Your task to perform on an android device: Open Amazon Image 0: 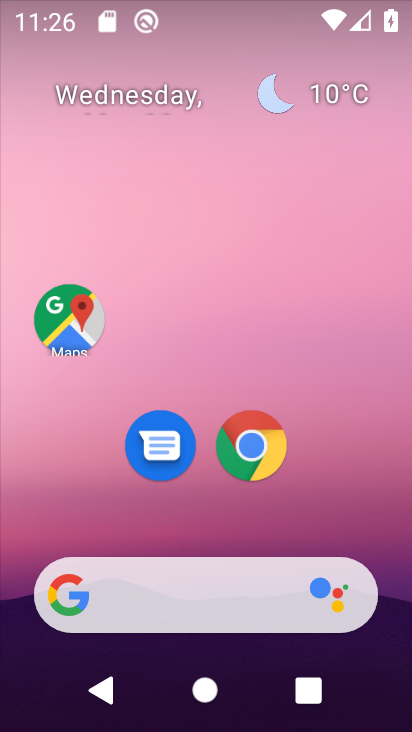
Step 0: click (252, 445)
Your task to perform on an android device: Open Amazon Image 1: 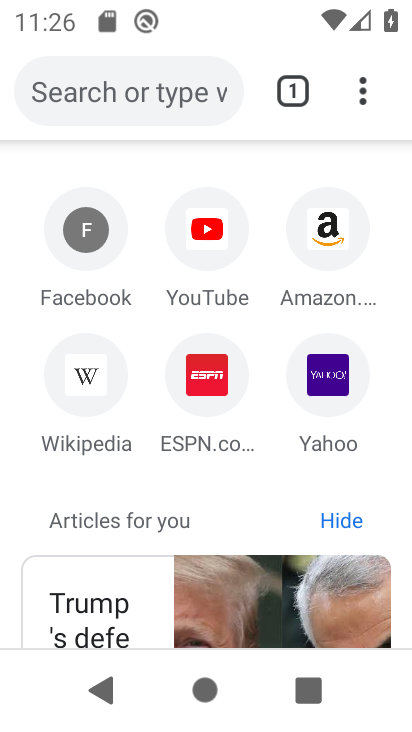
Step 1: click (333, 233)
Your task to perform on an android device: Open Amazon Image 2: 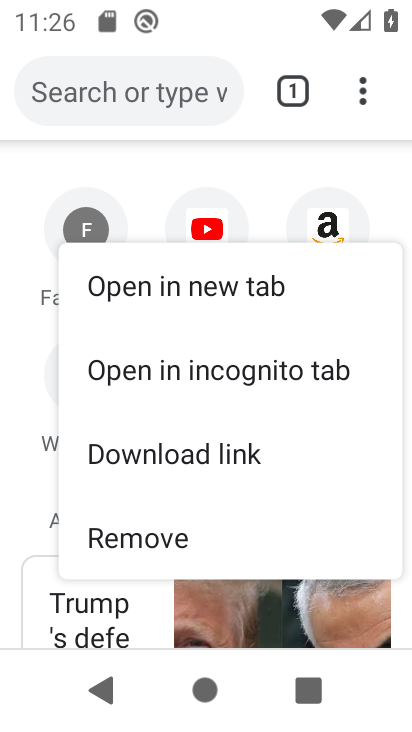
Step 2: click (335, 218)
Your task to perform on an android device: Open Amazon Image 3: 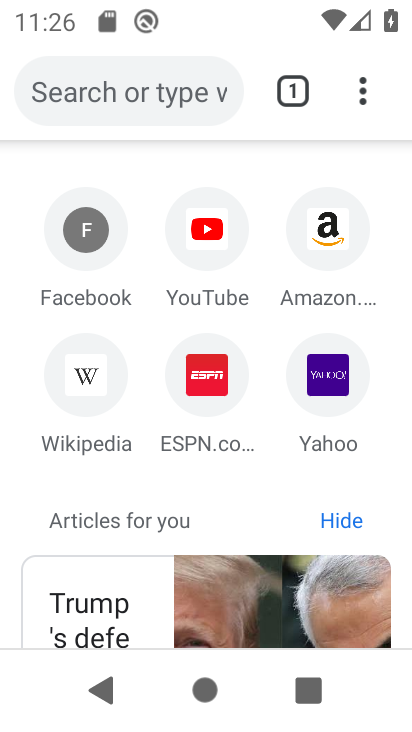
Step 3: click (334, 216)
Your task to perform on an android device: Open Amazon Image 4: 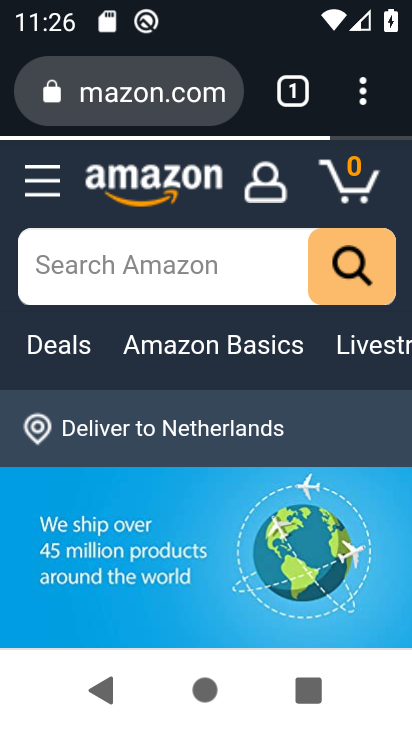
Step 4: task complete